Your task to perform on an android device: See recent photos Image 0: 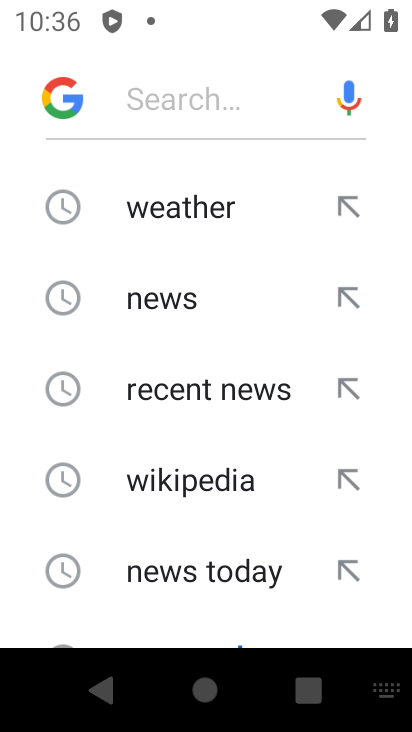
Step 0: press home button
Your task to perform on an android device: See recent photos Image 1: 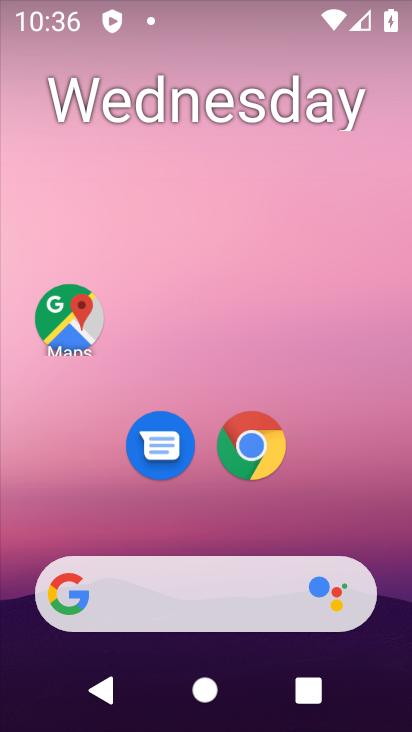
Step 1: drag from (317, 523) to (308, 146)
Your task to perform on an android device: See recent photos Image 2: 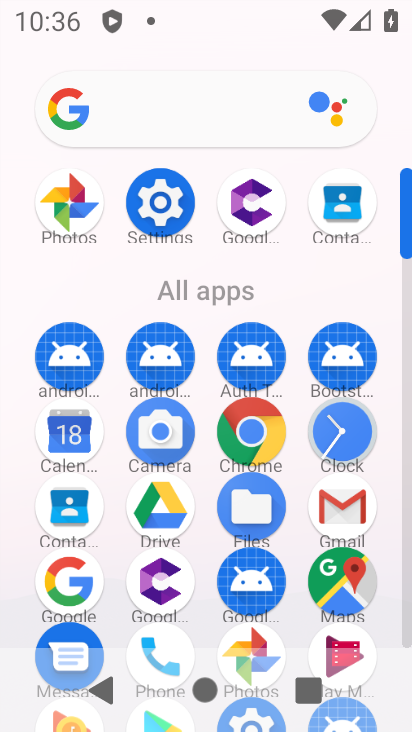
Step 2: click (79, 199)
Your task to perform on an android device: See recent photos Image 3: 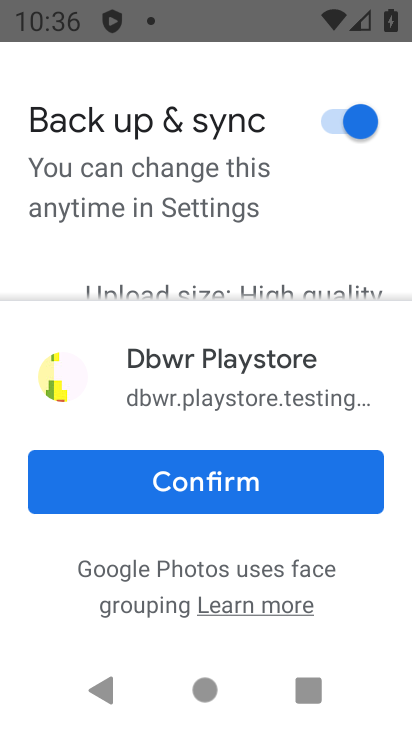
Step 3: click (208, 503)
Your task to perform on an android device: See recent photos Image 4: 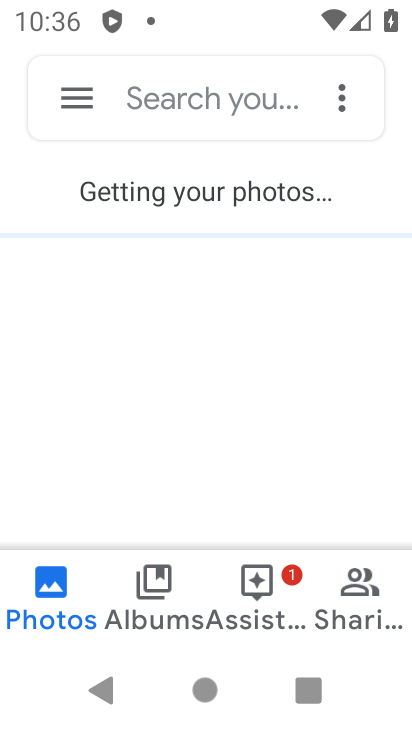
Step 4: click (171, 586)
Your task to perform on an android device: See recent photos Image 5: 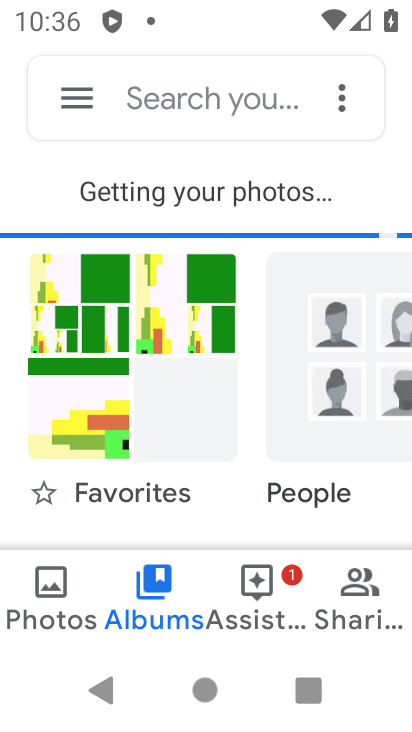
Step 5: click (62, 587)
Your task to perform on an android device: See recent photos Image 6: 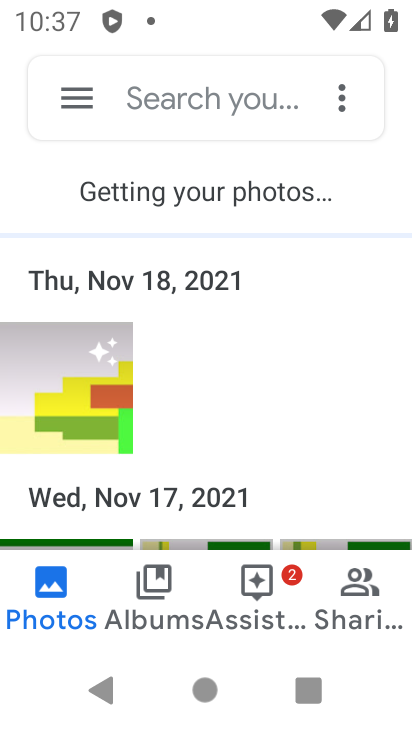
Step 6: task complete